Your task to perform on an android device: toggle translation in the chrome app Image 0: 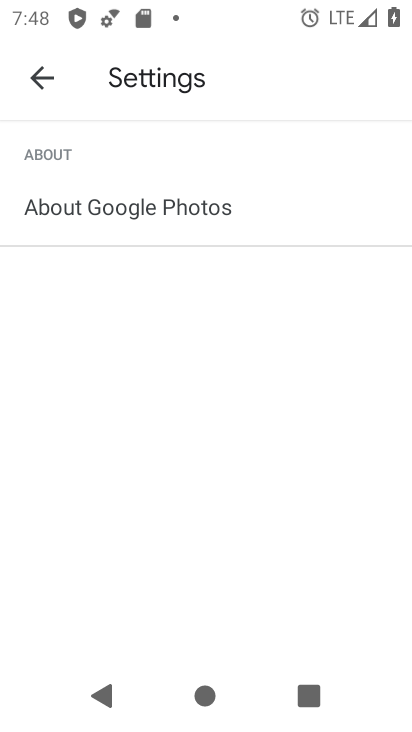
Step 0: press home button
Your task to perform on an android device: toggle translation in the chrome app Image 1: 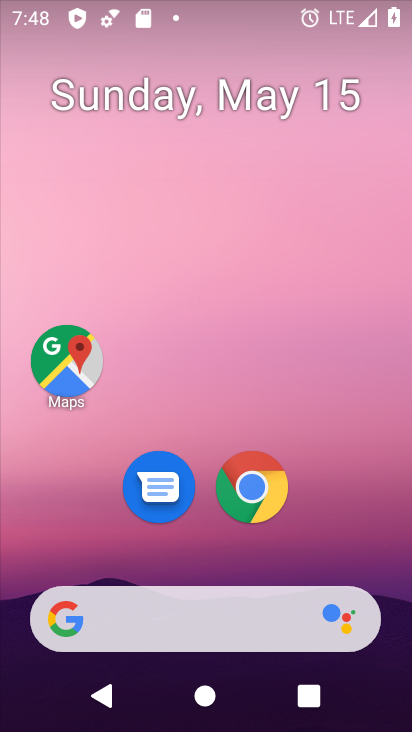
Step 1: drag from (354, 518) to (329, 123)
Your task to perform on an android device: toggle translation in the chrome app Image 2: 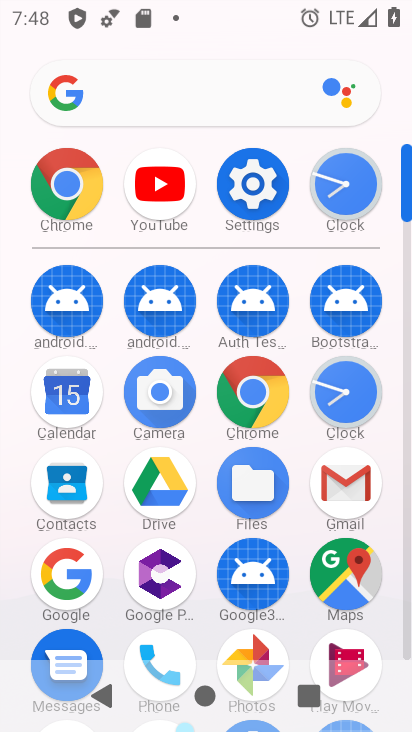
Step 2: click (246, 386)
Your task to perform on an android device: toggle translation in the chrome app Image 3: 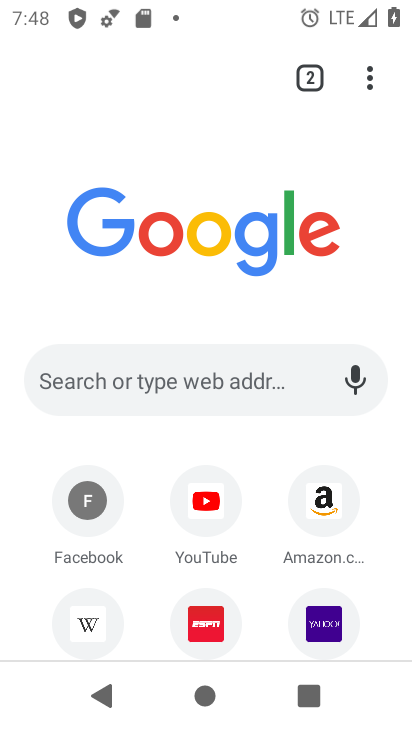
Step 3: drag from (375, 91) to (259, 559)
Your task to perform on an android device: toggle translation in the chrome app Image 4: 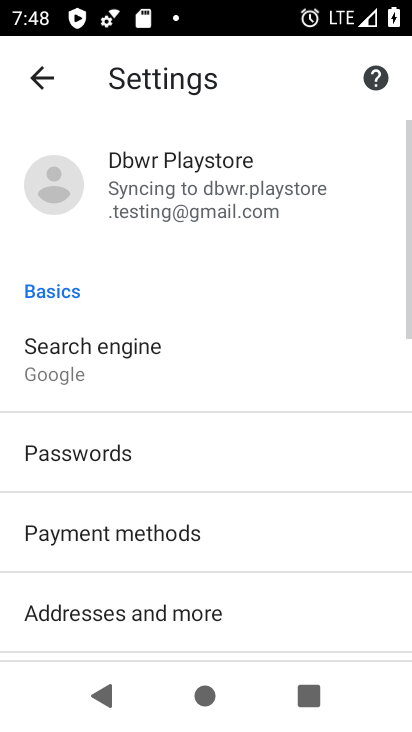
Step 4: drag from (381, 639) to (350, 177)
Your task to perform on an android device: toggle translation in the chrome app Image 5: 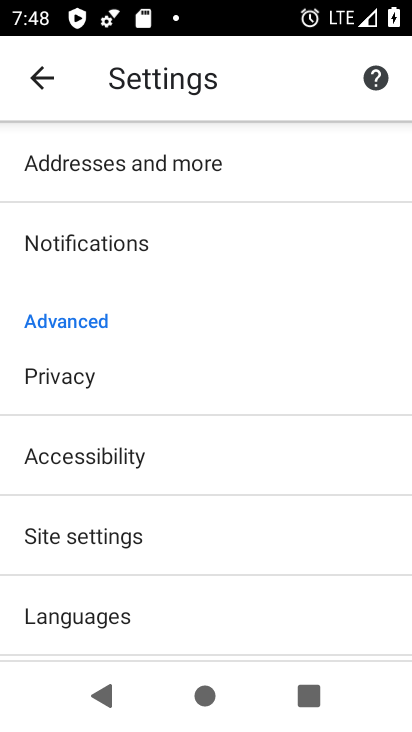
Step 5: drag from (298, 594) to (269, 220)
Your task to perform on an android device: toggle translation in the chrome app Image 6: 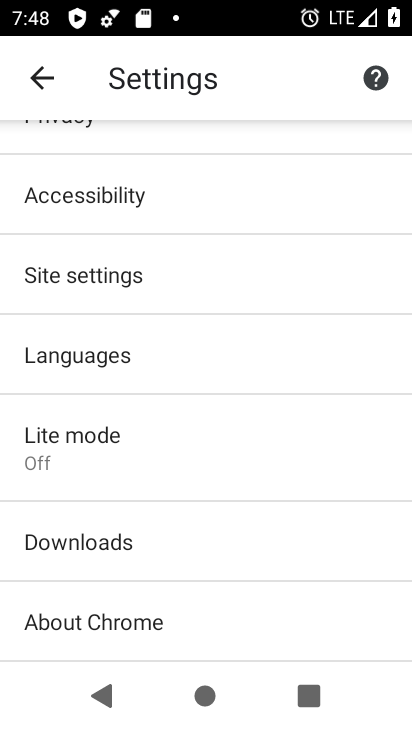
Step 6: click (147, 358)
Your task to perform on an android device: toggle translation in the chrome app Image 7: 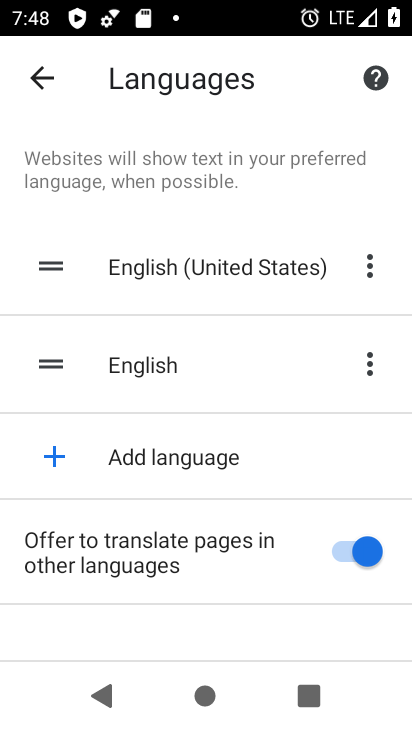
Step 7: click (350, 549)
Your task to perform on an android device: toggle translation in the chrome app Image 8: 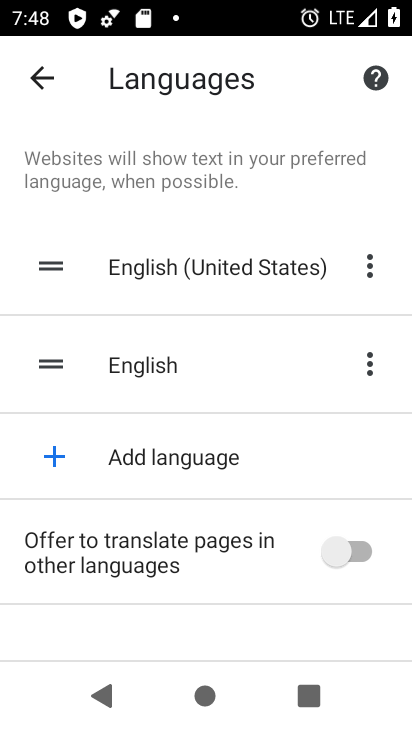
Step 8: task complete